Your task to perform on an android device: Open Google Chrome and open the bookmarks view Image 0: 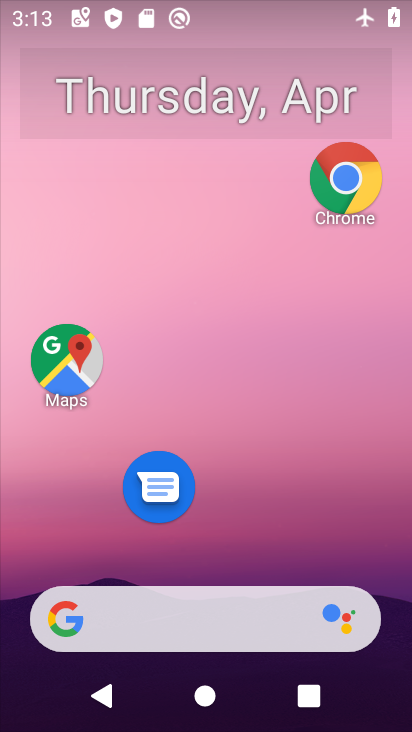
Step 0: drag from (233, 598) to (231, 349)
Your task to perform on an android device: Open Google Chrome and open the bookmarks view Image 1: 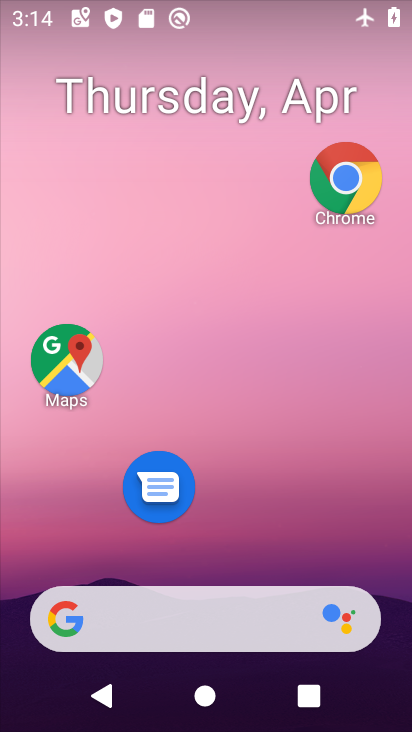
Step 1: drag from (250, 660) to (244, 448)
Your task to perform on an android device: Open Google Chrome and open the bookmarks view Image 2: 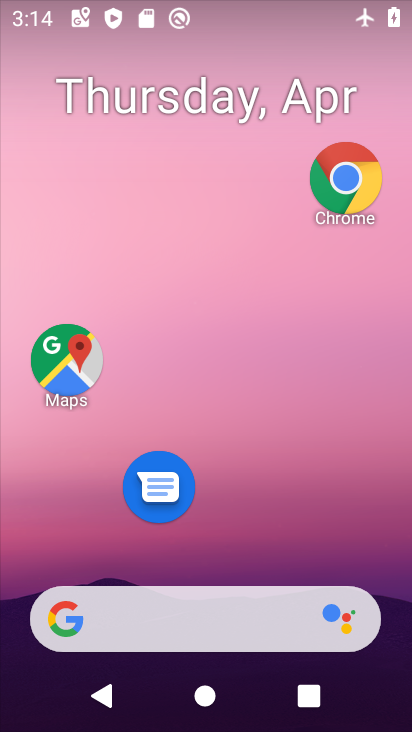
Step 2: drag from (251, 520) to (257, 356)
Your task to perform on an android device: Open Google Chrome and open the bookmarks view Image 3: 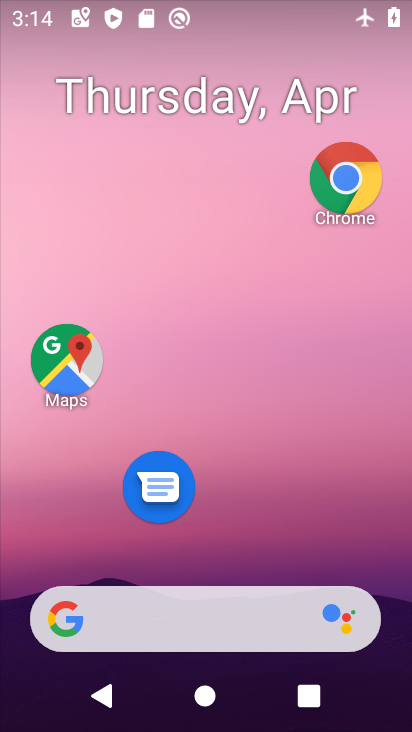
Step 3: click (373, 188)
Your task to perform on an android device: Open Google Chrome and open the bookmarks view Image 4: 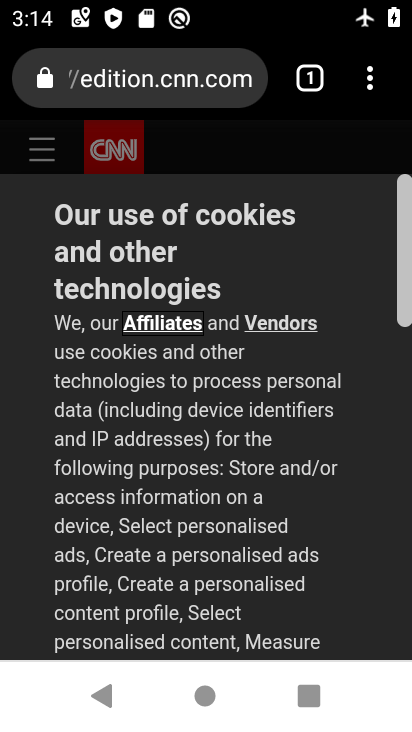
Step 4: click (365, 89)
Your task to perform on an android device: Open Google Chrome and open the bookmarks view Image 5: 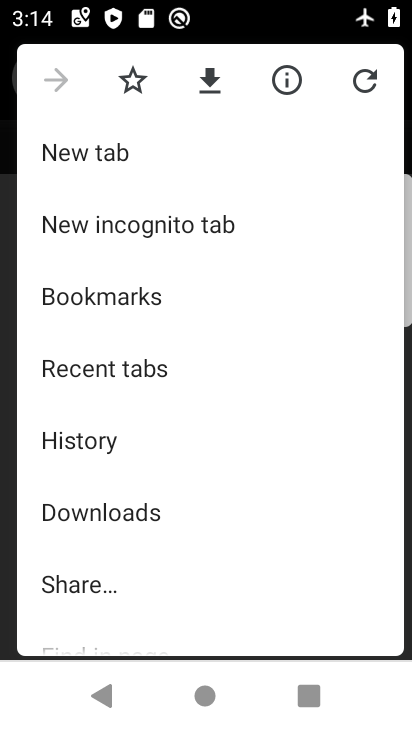
Step 5: drag from (194, 514) to (214, 249)
Your task to perform on an android device: Open Google Chrome and open the bookmarks view Image 6: 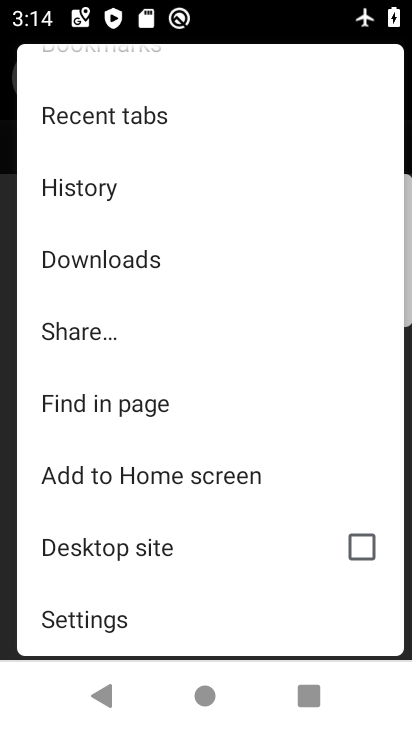
Step 6: drag from (201, 180) to (205, 430)
Your task to perform on an android device: Open Google Chrome and open the bookmarks view Image 7: 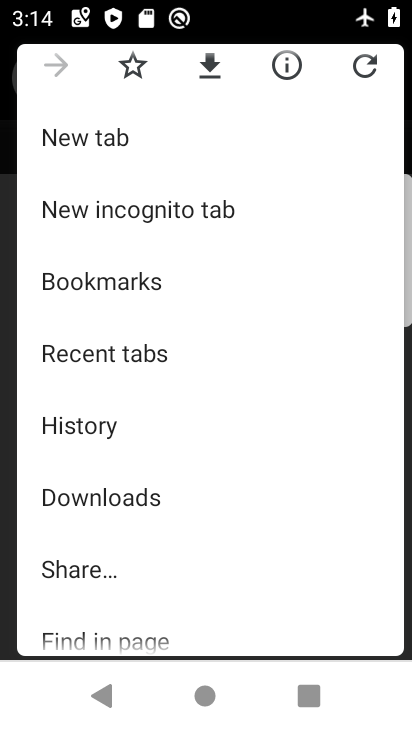
Step 7: click (195, 298)
Your task to perform on an android device: Open Google Chrome and open the bookmarks view Image 8: 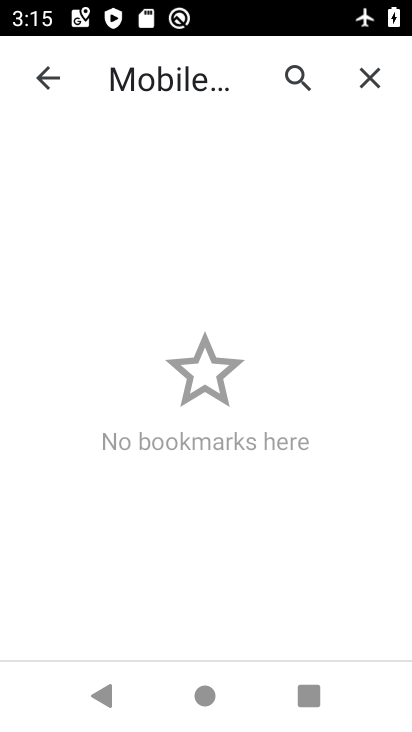
Step 8: task complete